Your task to perform on an android device: turn pop-ups off in chrome Image 0: 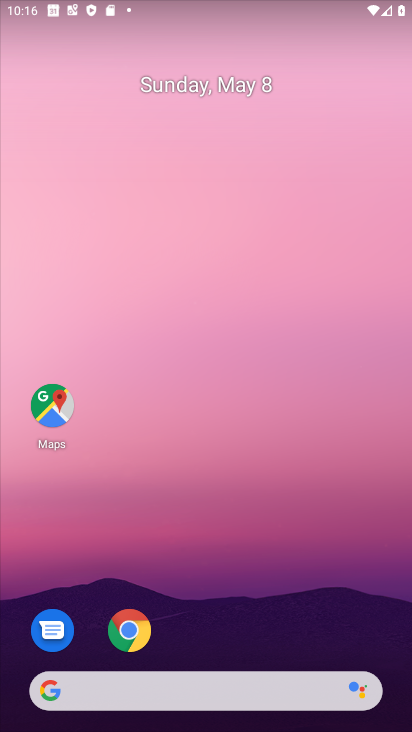
Step 0: click (127, 632)
Your task to perform on an android device: turn pop-ups off in chrome Image 1: 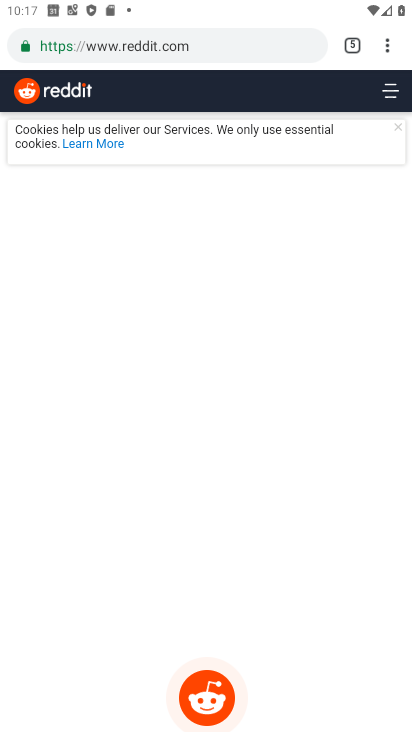
Step 1: click (386, 52)
Your task to perform on an android device: turn pop-ups off in chrome Image 2: 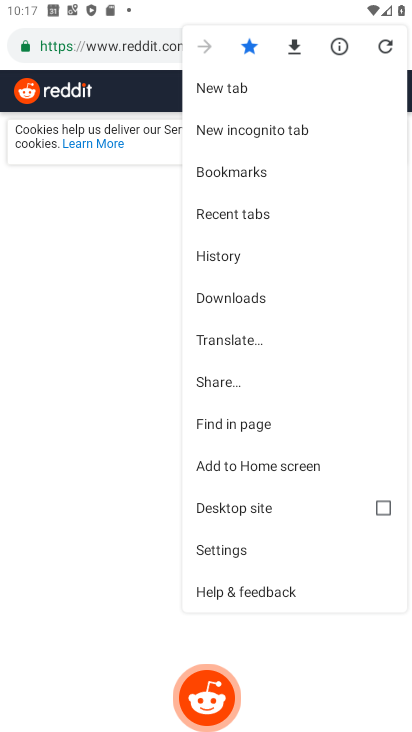
Step 2: click (230, 548)
Your task to perform on an android device: turn pop-ups off in chrome Image 3: 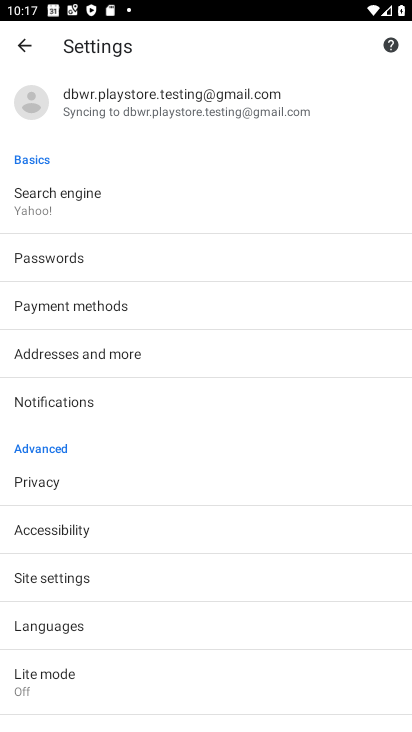
Step 3: click (46, 577)
Your task to perform on an android device: turn pop-ups off in chrome Image 4: 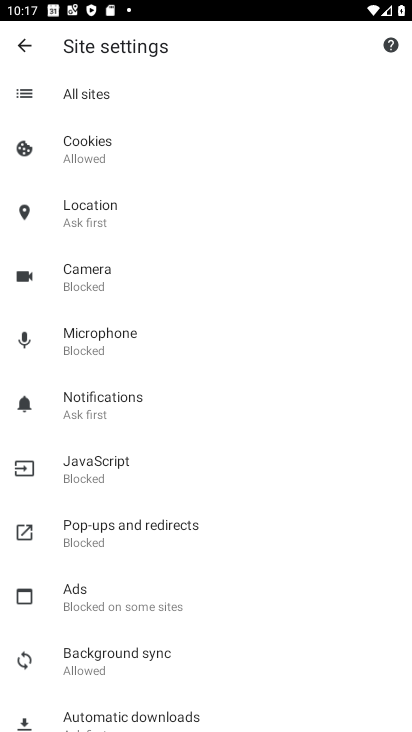
Step 4: click (100, 525)
Your task to perform on an android device: turn pop-ups off in chrome Image 5: 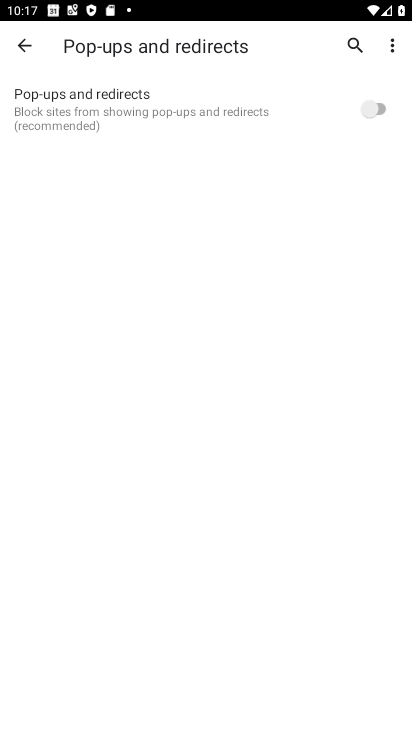
Step 5: task complete